Your task to perform on an android device: install app "Flipkart Online Shopping App" Image 0: 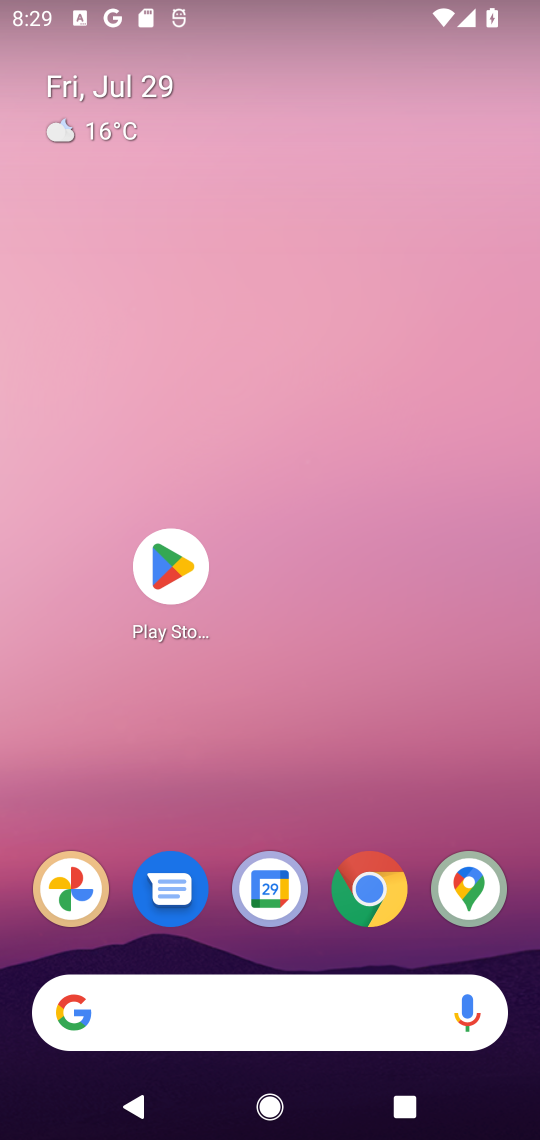
Step 0: press home button
Your task to perform on an android device: install app "Flipkart Online Shopping App" Image 1: 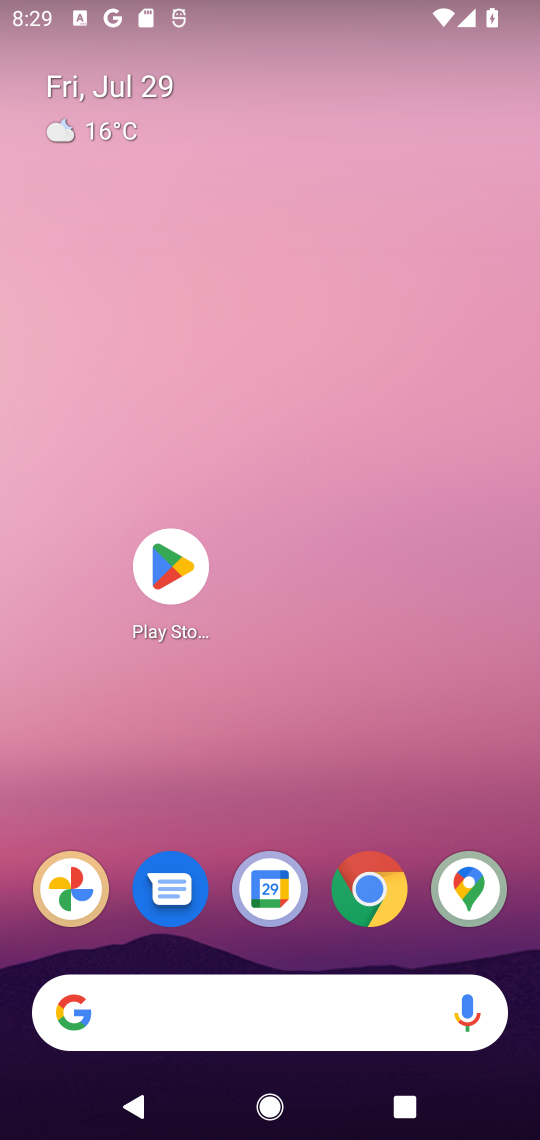
Step 1: click (163, 553)
Your task to perform on an android device: install app "Flipkart Online Shopping App" Image 2: 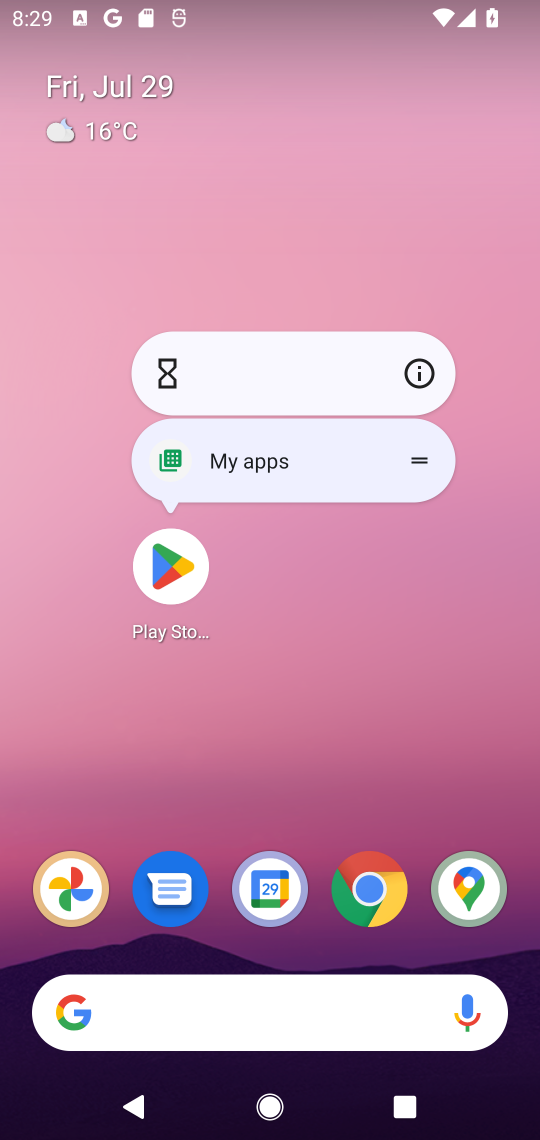
Step 2: click (163, 563)
Your task to perform on an android device: install app "Flipkart Online Shopping App" Image 3: 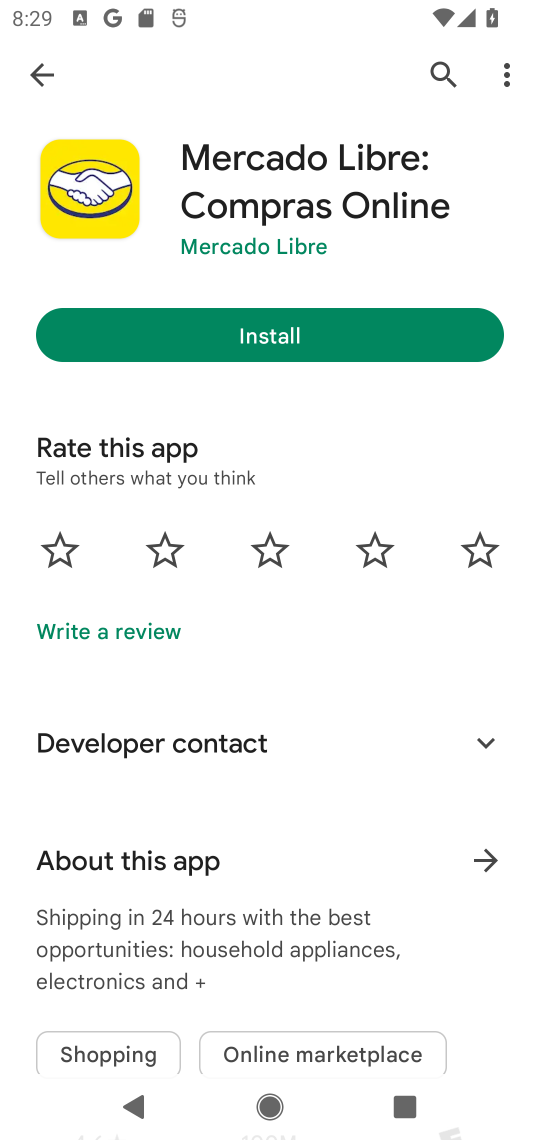
Step 3: click (446, 71)
Your task to perform on an android device: install app "Flipkart Online Shopping App" Image 4: 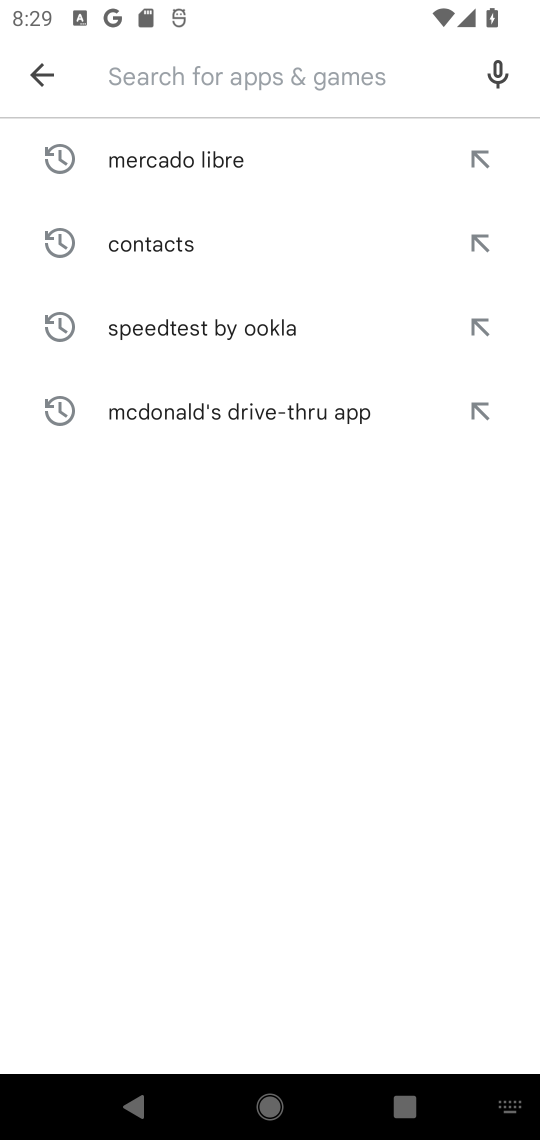
Step 4: type "Flipkart Online Shopping App"
Your task to perform on an android device: install app "Flipkart Online Shopping App" Image 5: 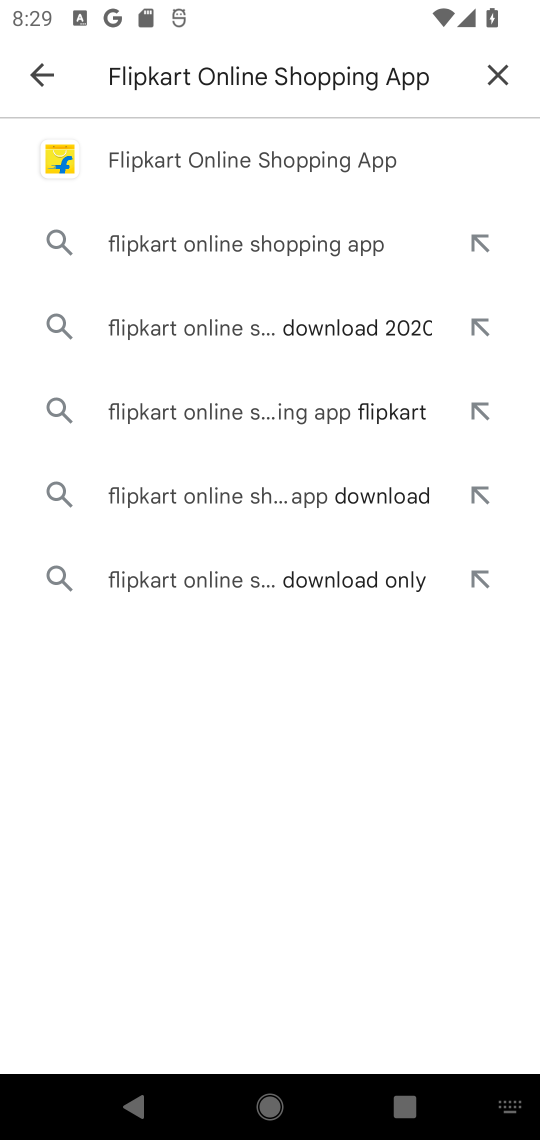
Step 5: click (250, 163)
Your task to perform on an android device: install app "Flipkart Online Shopping App" Image 6: 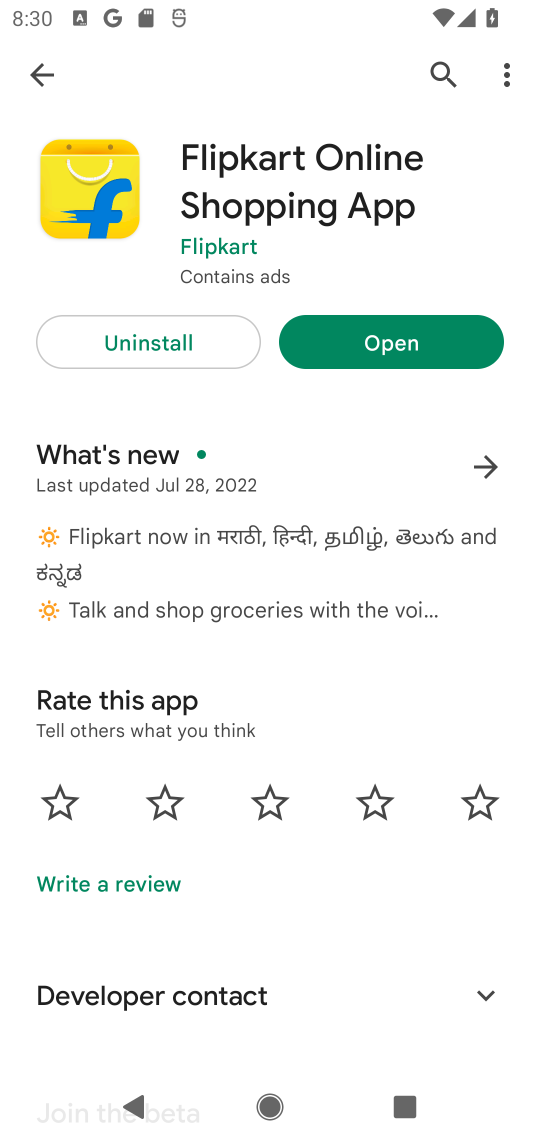
Step 6: task complete